Your task to perform on an android device: turn on location history Image 0: 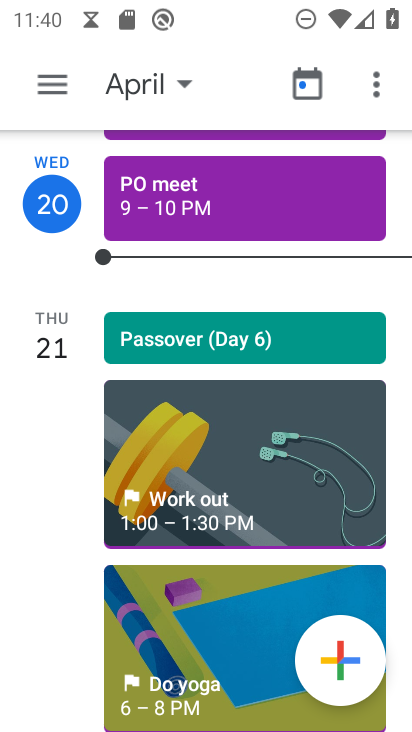
Step 0: press home button
Your task to perform on an android device: turn on location history Image 1: 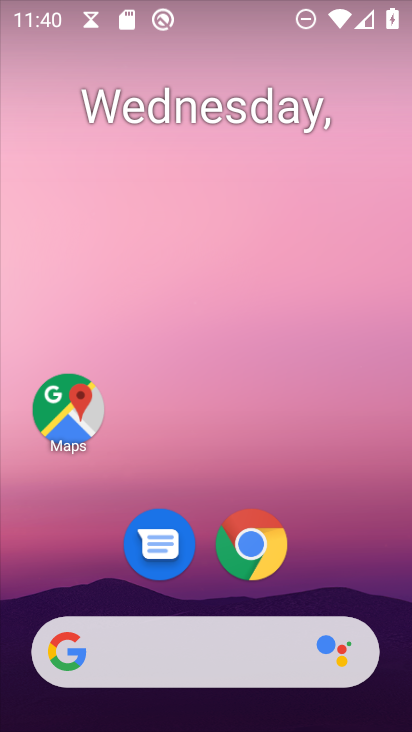
Step 1: drag from (235, 702) to (192, 301)
Your task to perform on an android device: turn on location history Image 2: 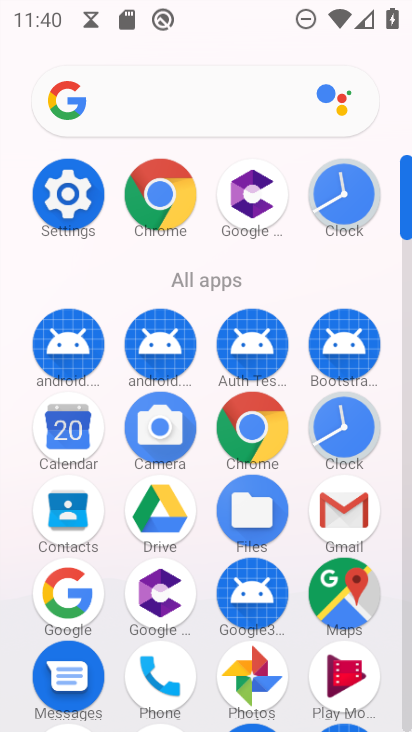
Step 2: click (53, 213)
Your task to perform on an android device: turn on location history Image 3: 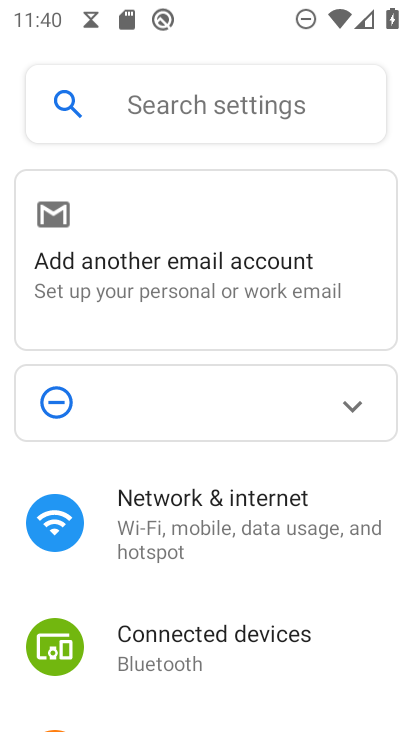
Step 3: click (210, 93)
Your task to perform on an android device: turn on location history Image 4: 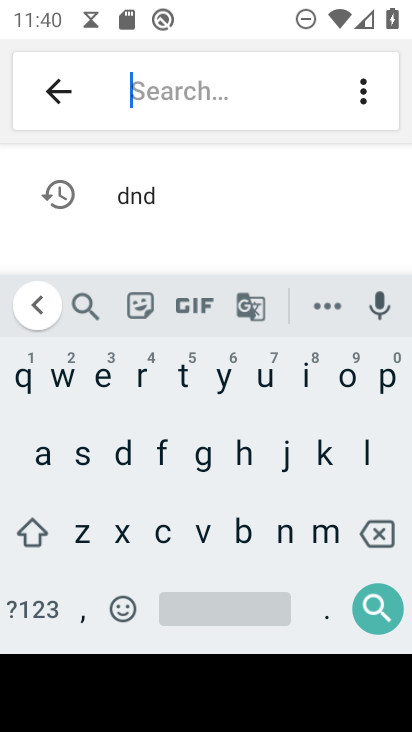
Step 4: click (364, 445)
Your task to perform on an android device: turn on location history Image 5: 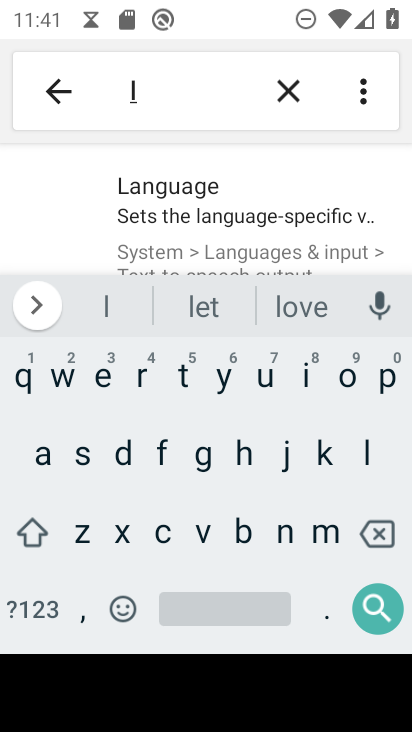
Step 5: click (342, 376)
Your task to perform on an android device: turn on location history Image 6: 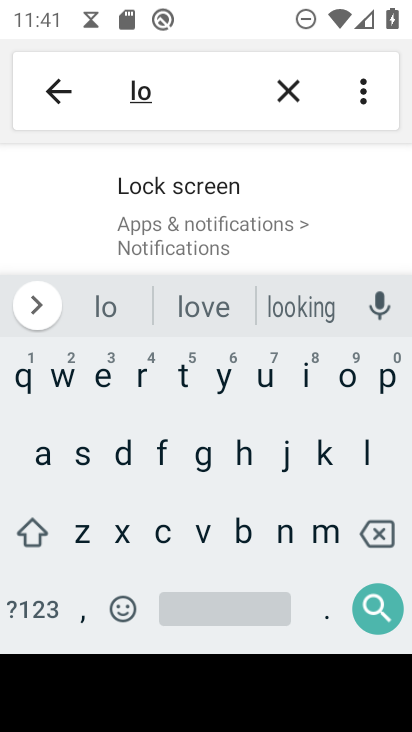
Step 6: click (155, 532)
Your task to perform on an android device: turn on location history Image 7: 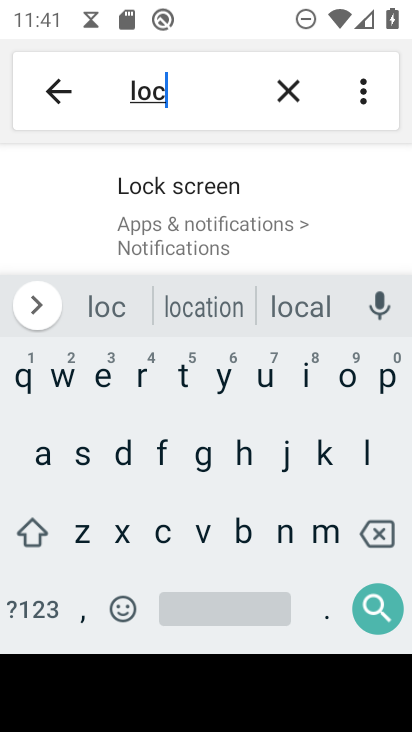
Step 7: click (31, 458)
Your task to perform on an android device: turn on location history Image 8: 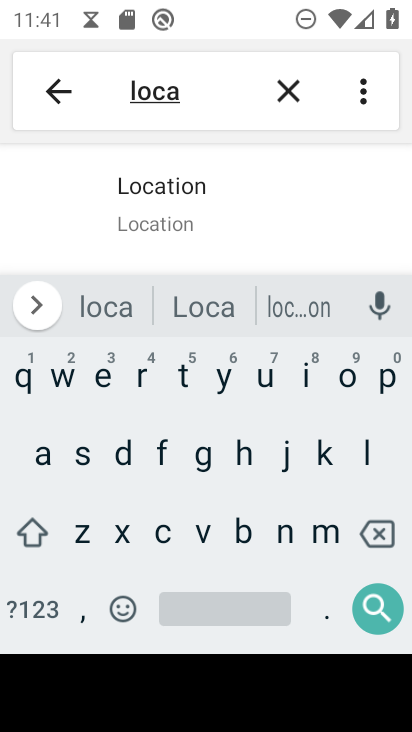
Step 8: click (121, 222)
Your task to perform on an android device: turn on location history Image 9: 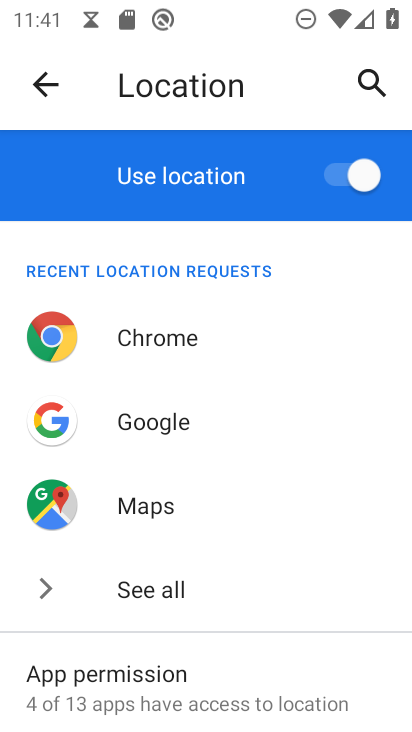
Step 9: drag from (156, 601) to (288, 309)
Your task to perform on an android device: turn on location history Image 10: 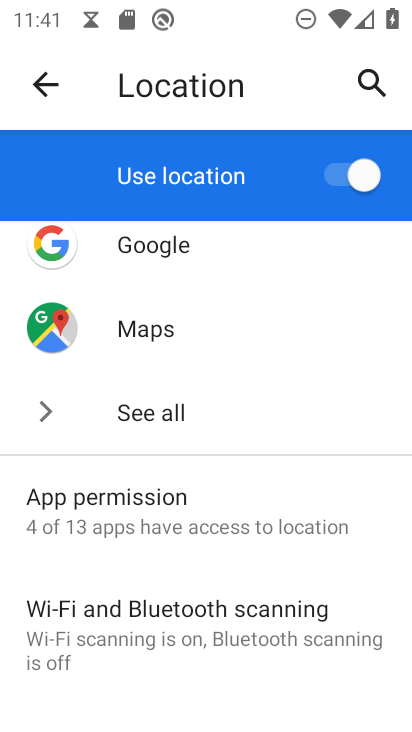
Step 10: drag from (167, 658) to (251, 452)
Your task to perform on an android device: turn on location history Image 11: 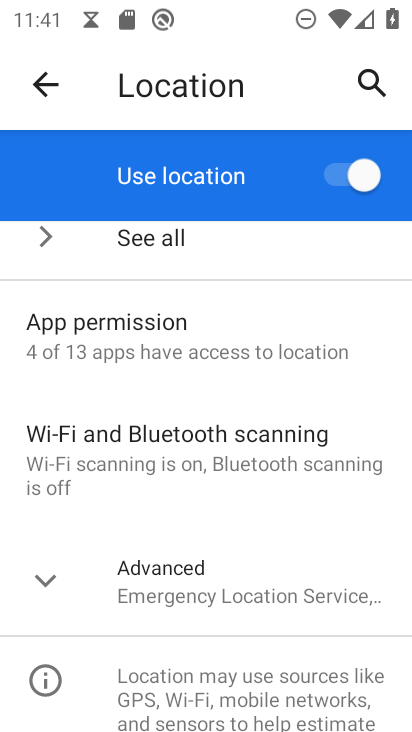
Step 11: click (115, 594)
Your task to perform on an android device: turn on location history Image 12: 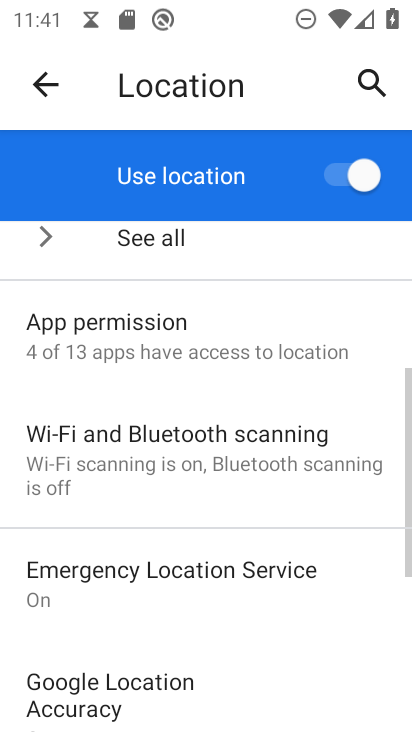
Step 12: drag from (113, 613) to (193, 505)
Your task to perform on an android device: turn on location history Image 13: 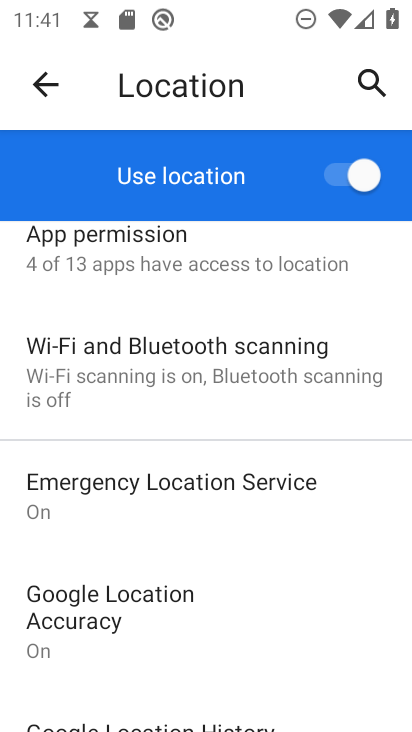
Step 13: drag from (136, 605) to (255, 436)
Your task to perform on an android device: turn on location history Image 14: 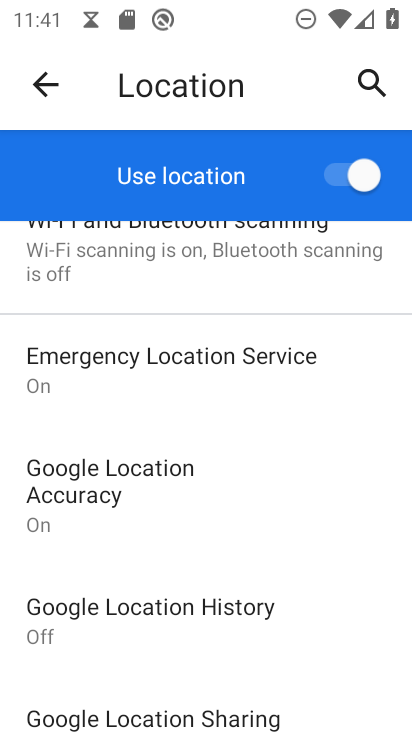
Step 14: click (151, 609)
Your task to perform on an android device: turn on location history Image 15: 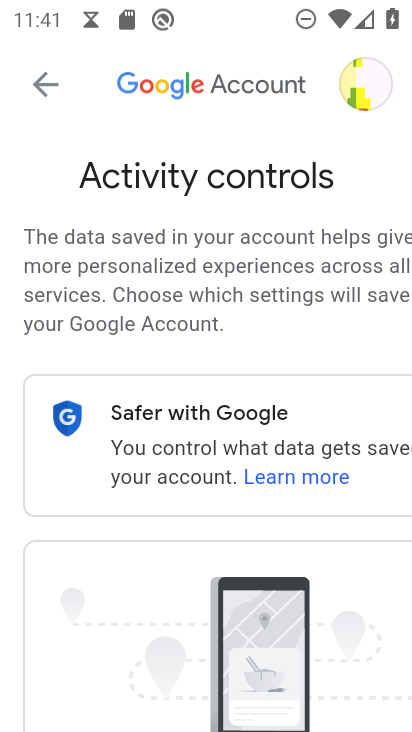
Step 15: drag from (212, 545) to (241, 266)
Your task to perform on an android device: turn on location history Image 16: 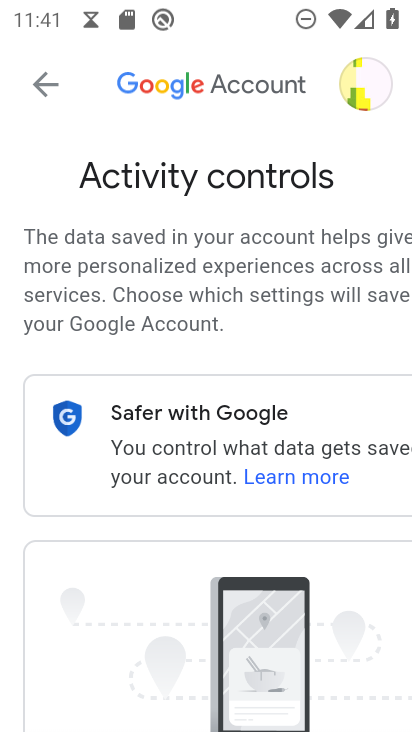
Step 16: drag from (134, 631) to (83, 304)
Your task to perform on an android device: turn on location history Image 17: 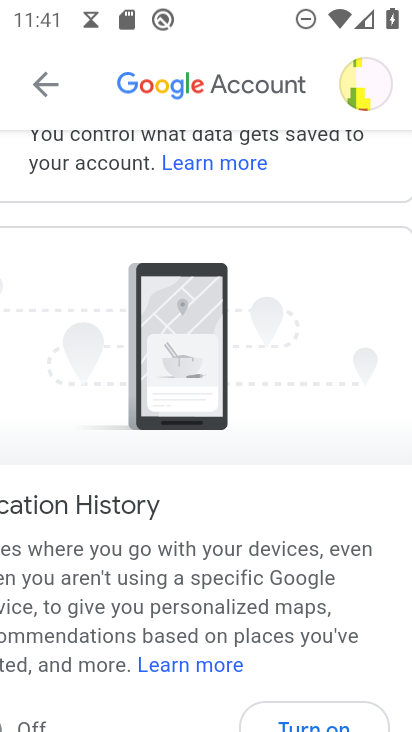
Step 17: drag from (173, 443) to (222, 302)
Your task to perform on an android device: turn on location history Image 18: 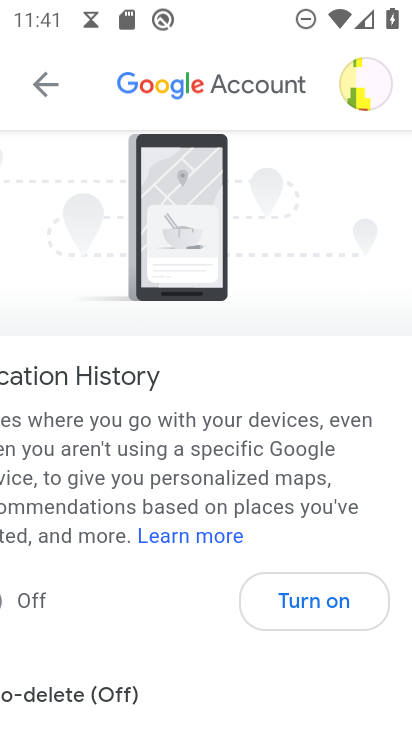
Step 18: click (317, 598)
Your task to perform on an android device: turn on location history Image 19: 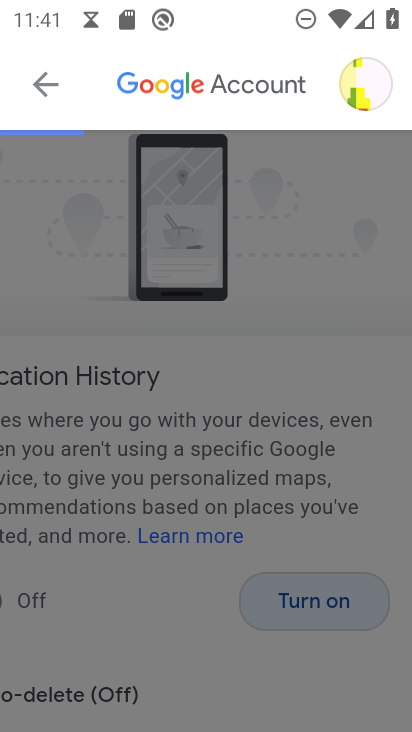
Step 19: task complete